Your task to perform on an android device: open app "Instagram" Image 0: 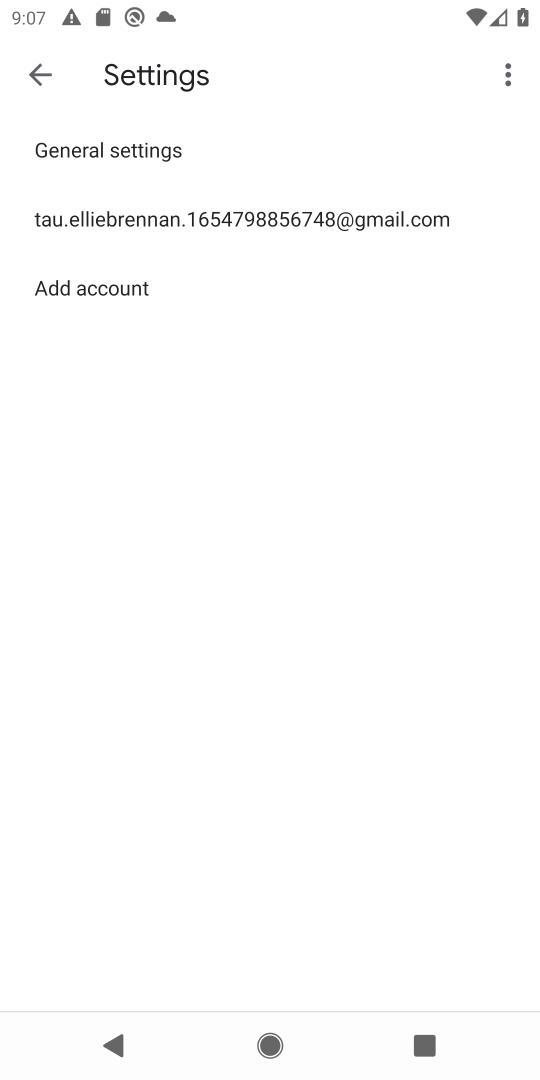
Step 0: press home button
Your task to perform on an android device: open app "Instagram" Image 1: 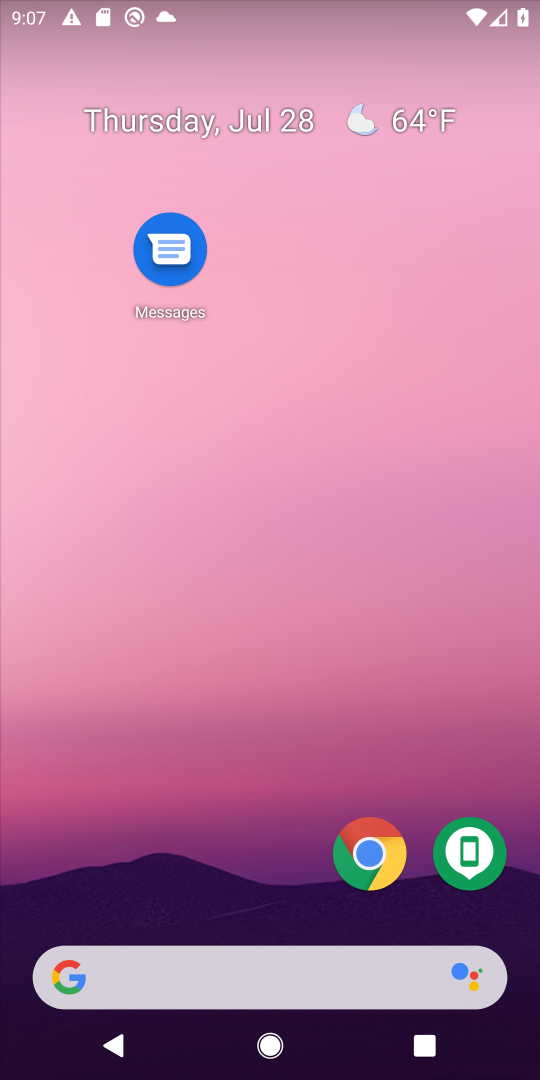
Step 1: drag from (293, 399) to (297, 302)
Your task to perform on an android device: open app "Instagram" Image 2: 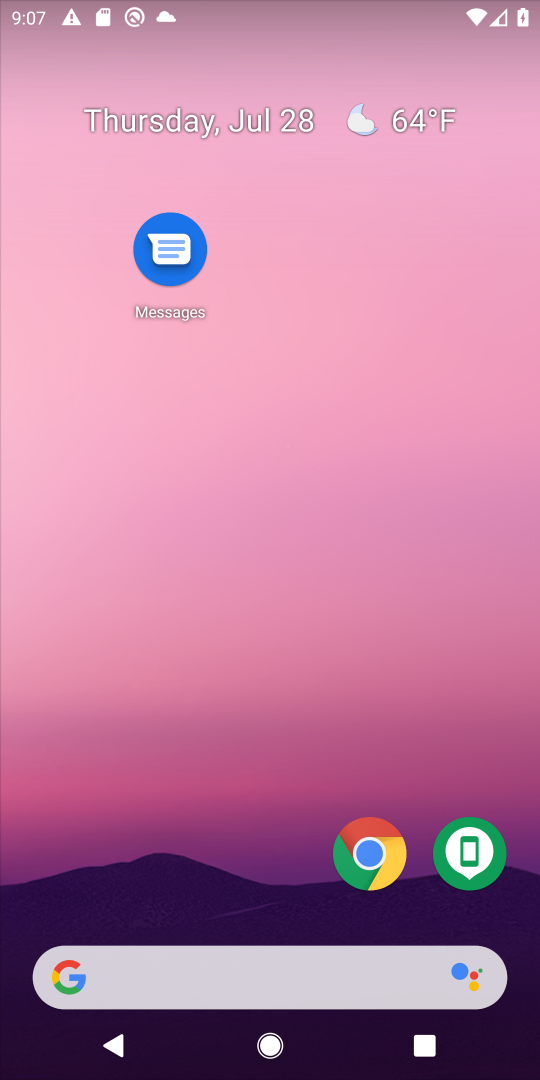
Step 2: drag from (285, 273) to (295, 216)
Your task to perform on an android device: open app "Instagram" Image 3: 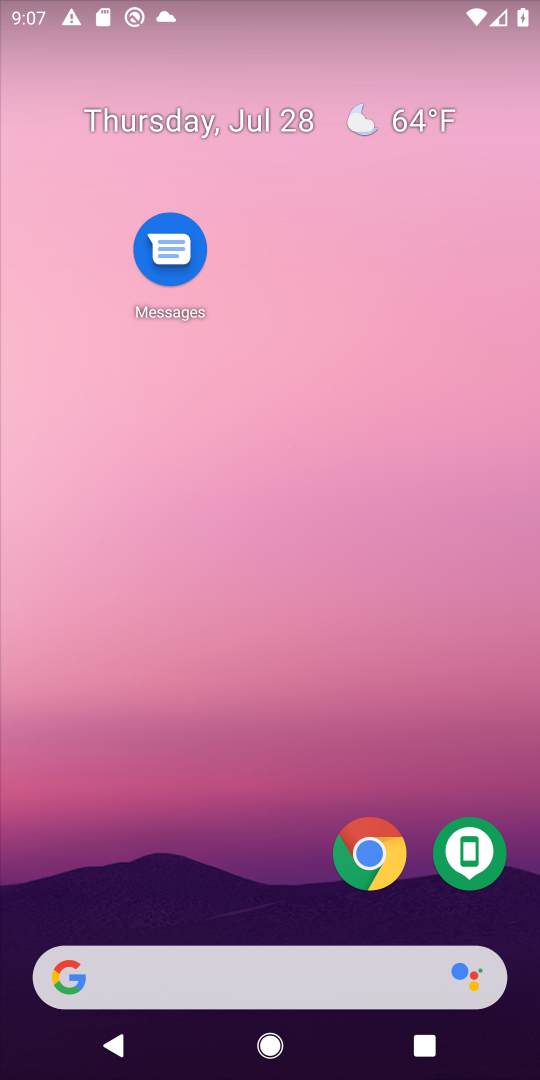
Step 3: drag from (220, 837) to (193, 567)
Your task to perform on an android device: open app "Instagram" Image 4: 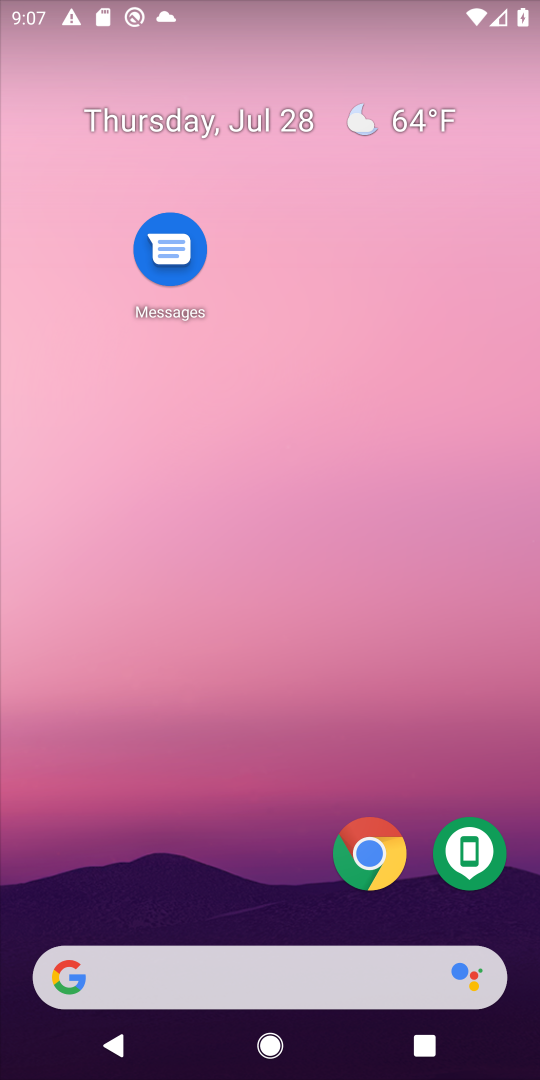
Step 4: drag from (257, 793) to (330, 5)
Your task to perform on an android device: open app "Instagram" Image 5: 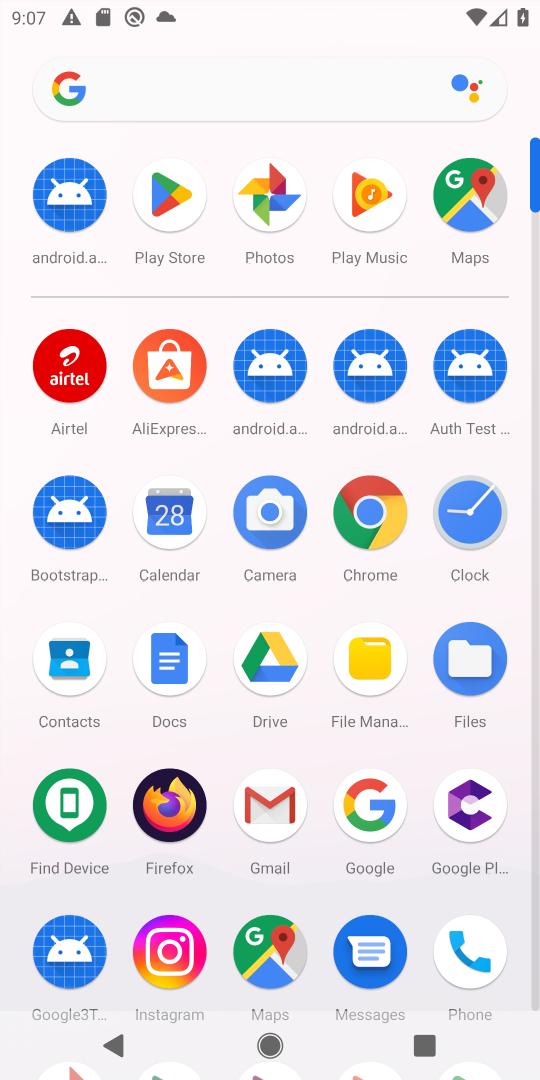
Step 5: click (162, 212)
Your task to perform on an android device: open app "Instagram" Image 6: 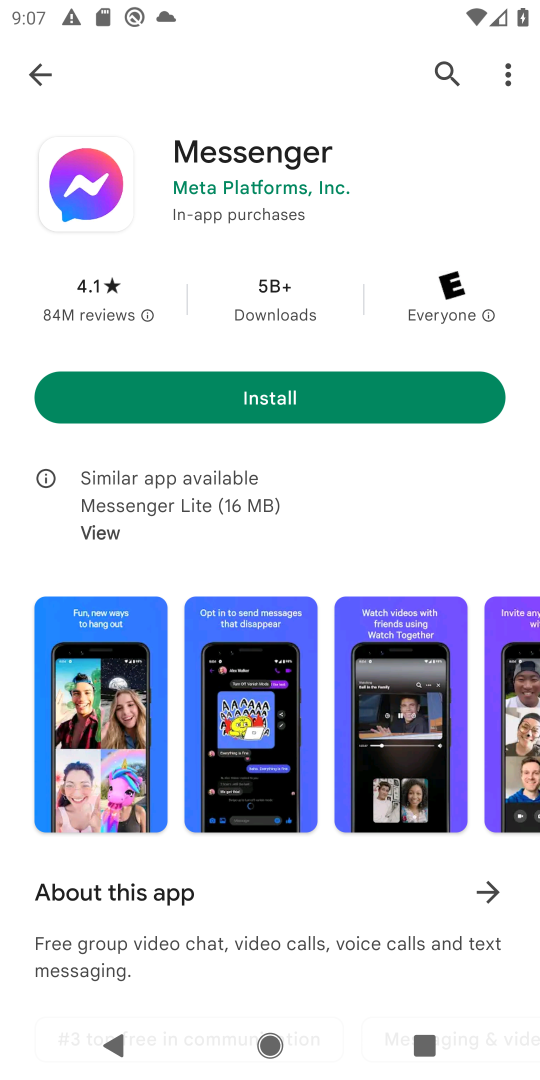
Step 6: click (45, 77)
Your task to perform on an android device: open app "Instagram" Image 7: 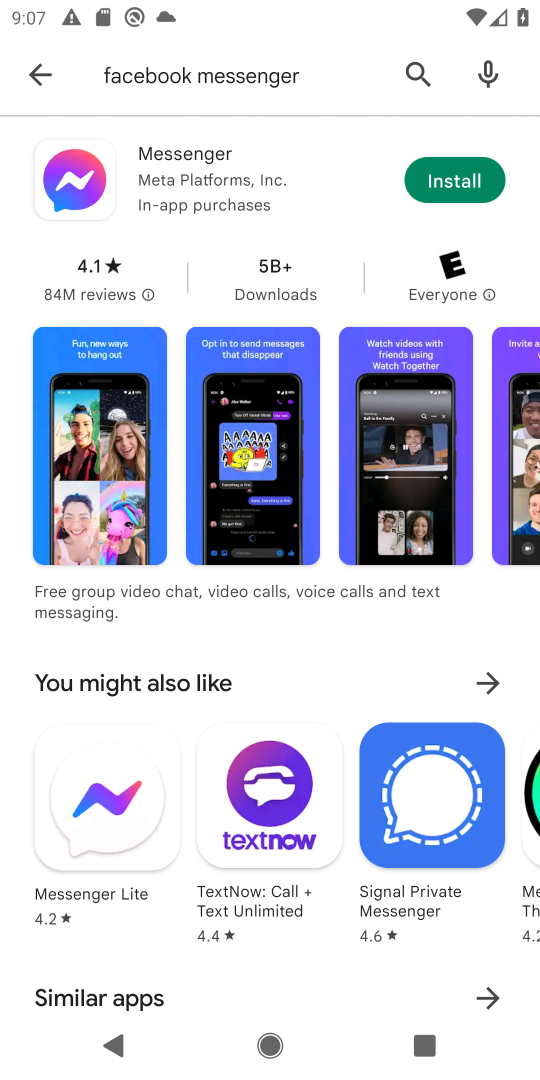
Step 7: click (44, 65)
Your task to perform on an android device: open app "Instagram" Image 8: 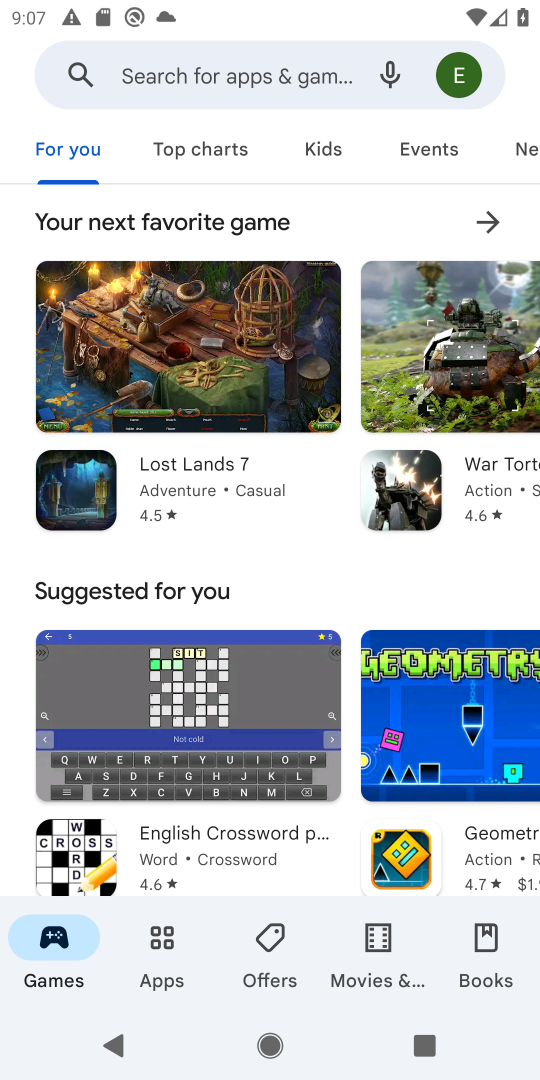
Step 8: click (177, 68)
Your task to perform on an android device: open app "Instagram" Image 9: 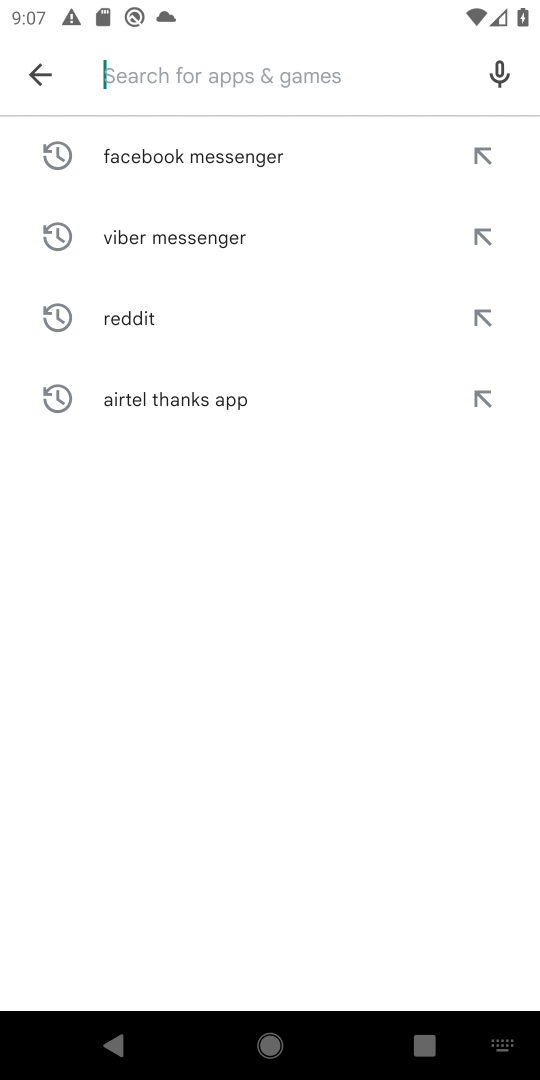
Step 9: type "Instagram"
Your task to perform on an android device: open app "Instagram" Image 10: 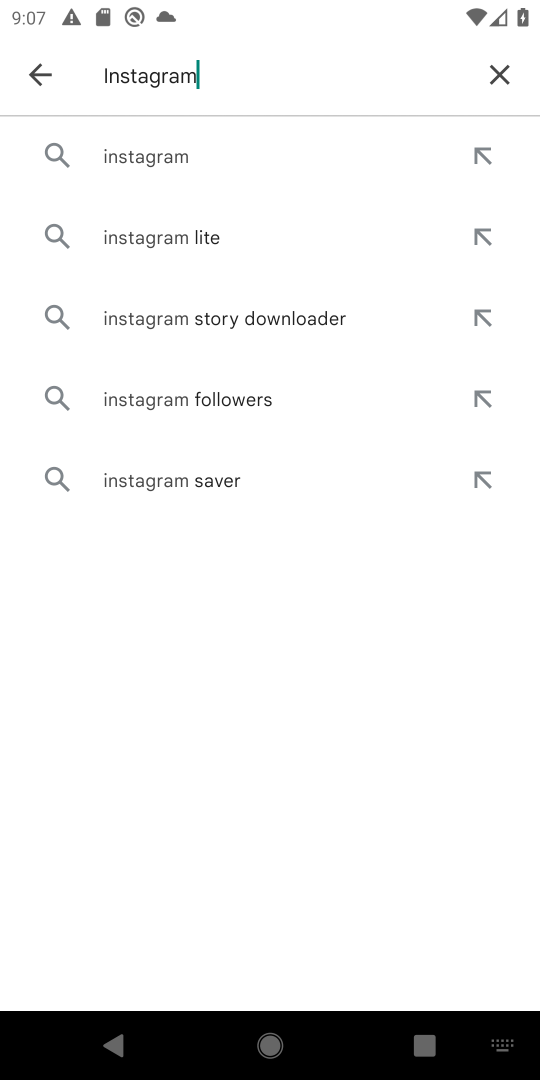
Step 10: click (155, 184)
Your task to perform on an android device: open app "Instagram" Image 11: 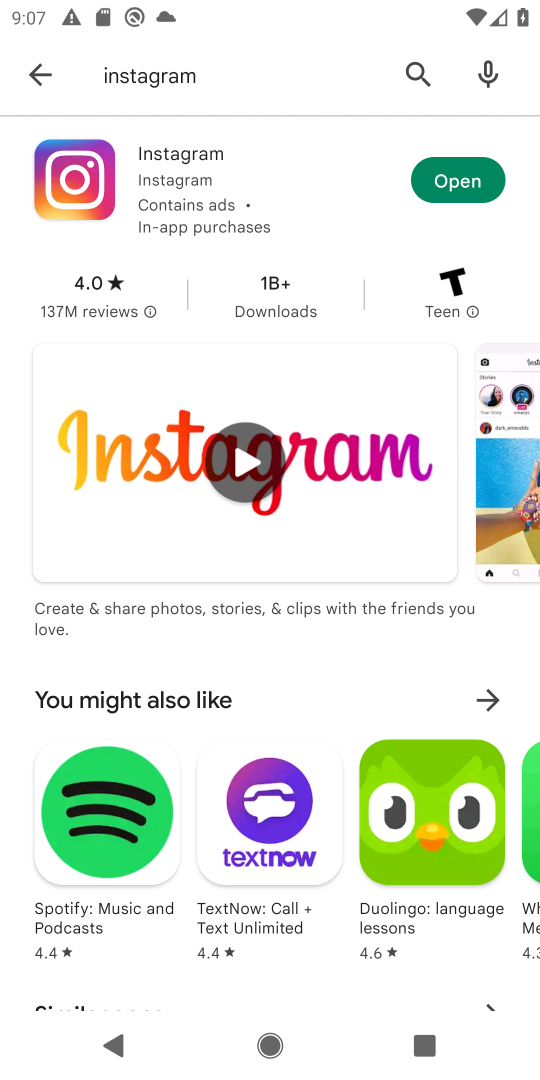
Step 11: click (461, 185)
Your task to perform on an android device: open app "Instagram" Image 12: 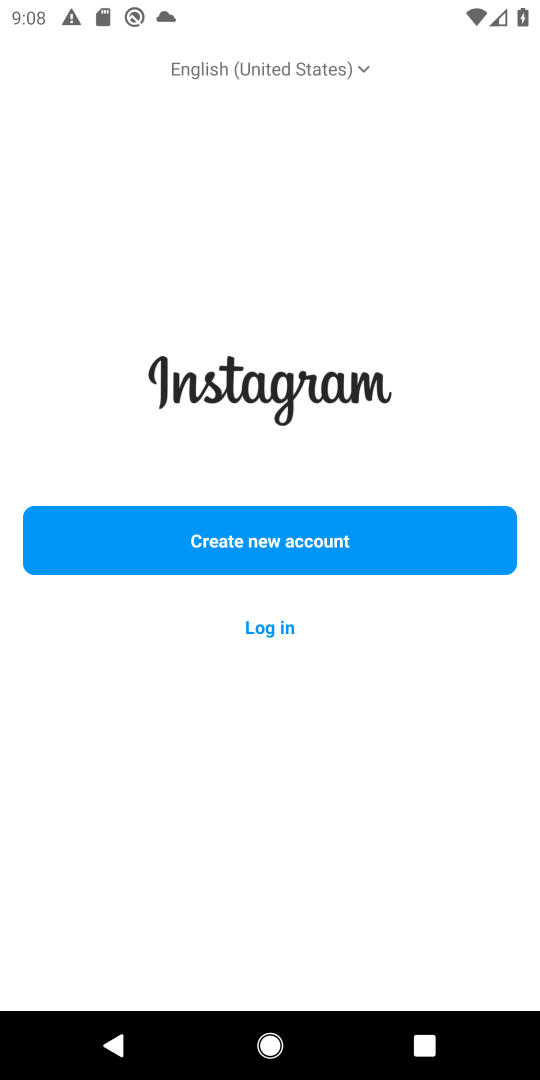
Step 12: task complete